Your task to perform on an android device: check out phone information Image 0: 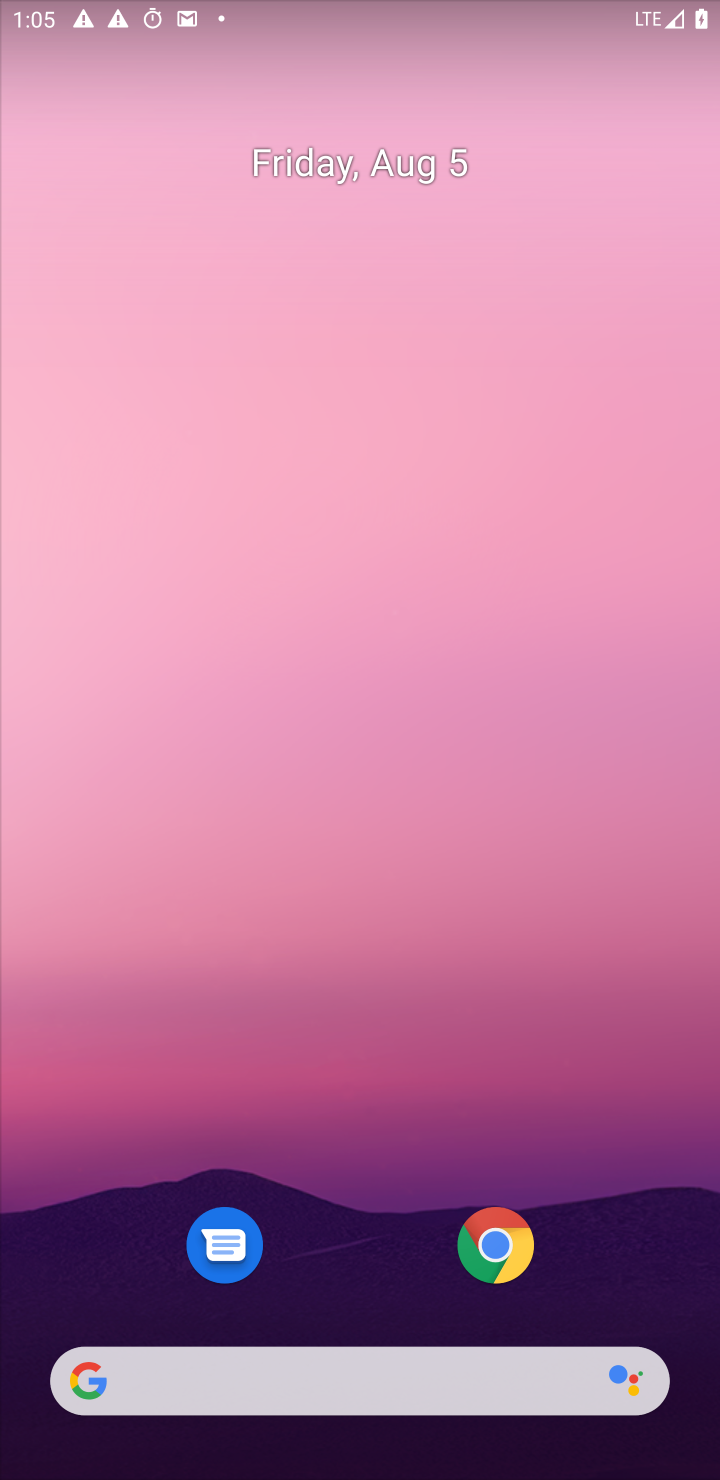
Step 0: press home button
Your task to perform on an android device: check out phone information Image 1: 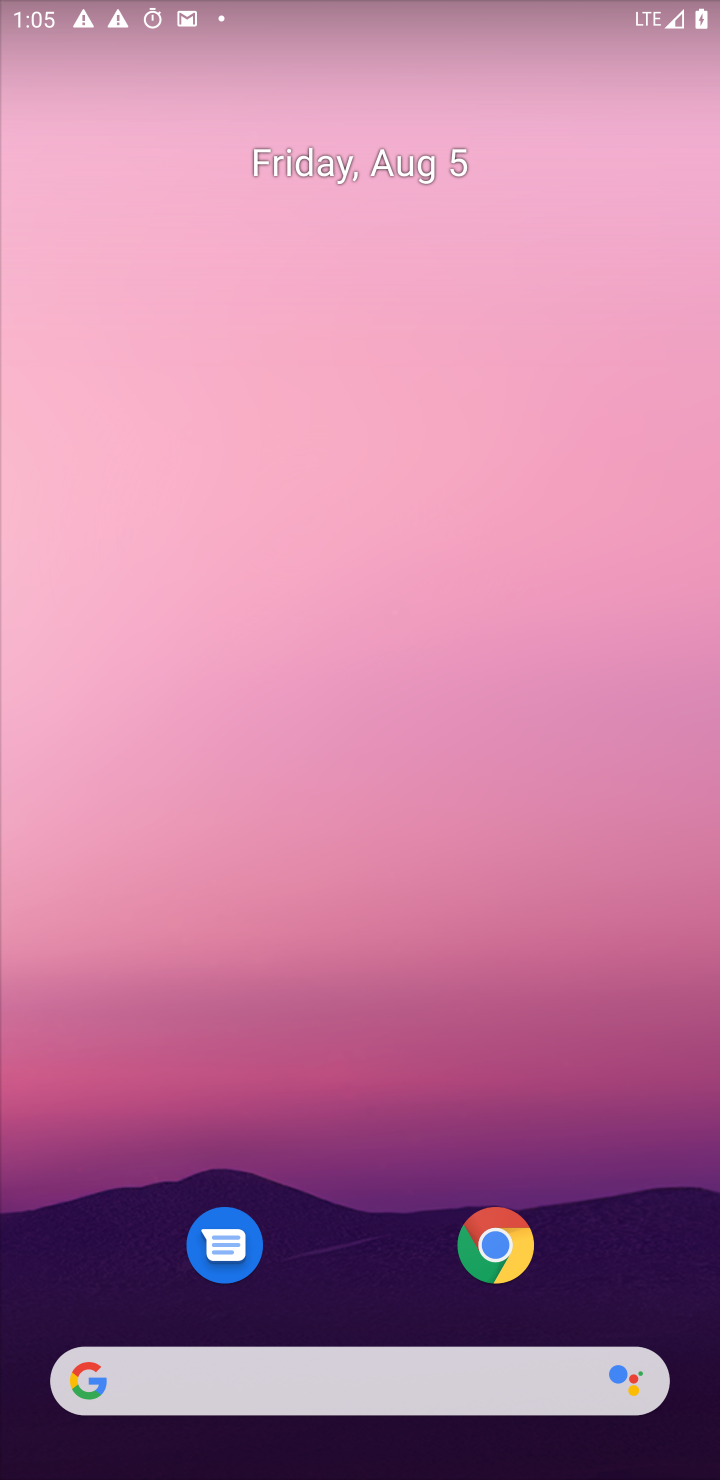
Step 1: drag from (308, 1315) to (631, 151)
Your task to perform on an android device: check out phone information Image 2: 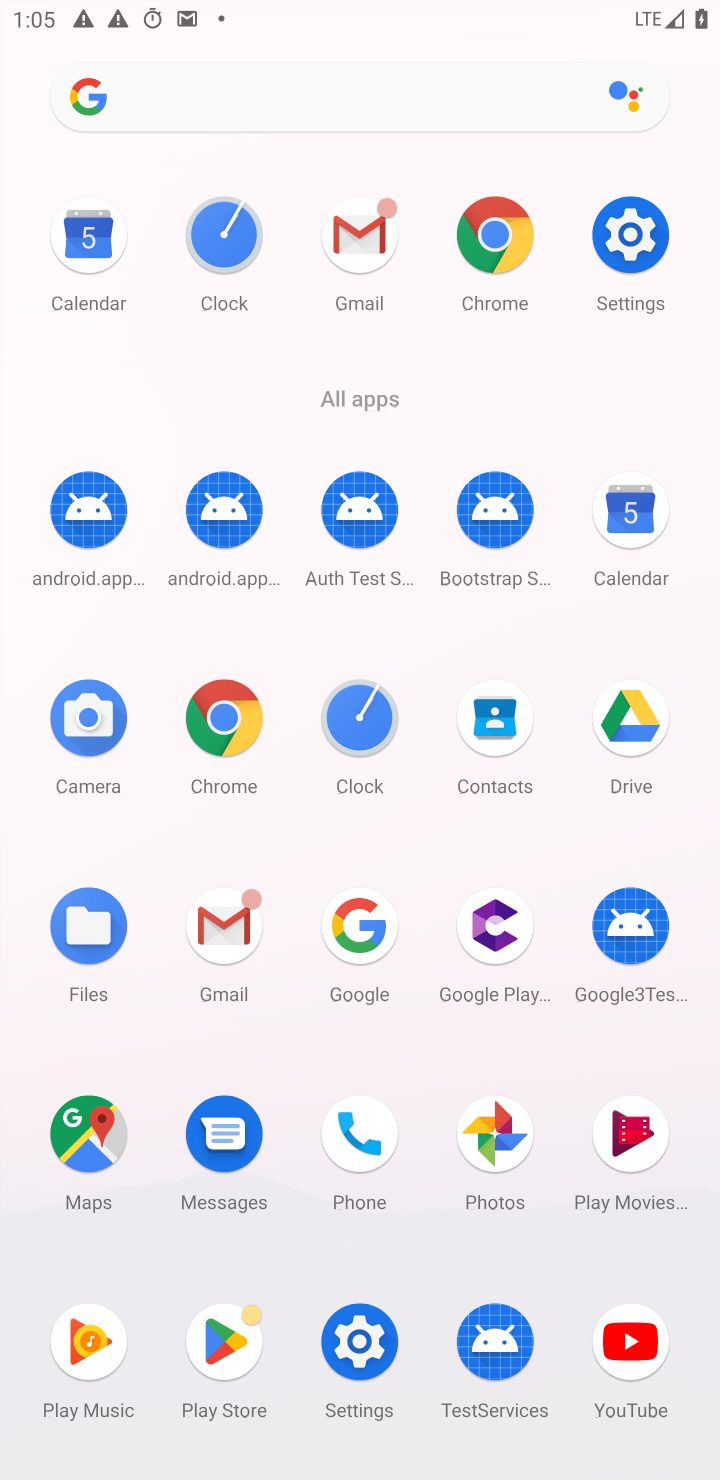
Step 2: click (346, 1360)
Your task to perform on an android device: check out phone information Image 3: 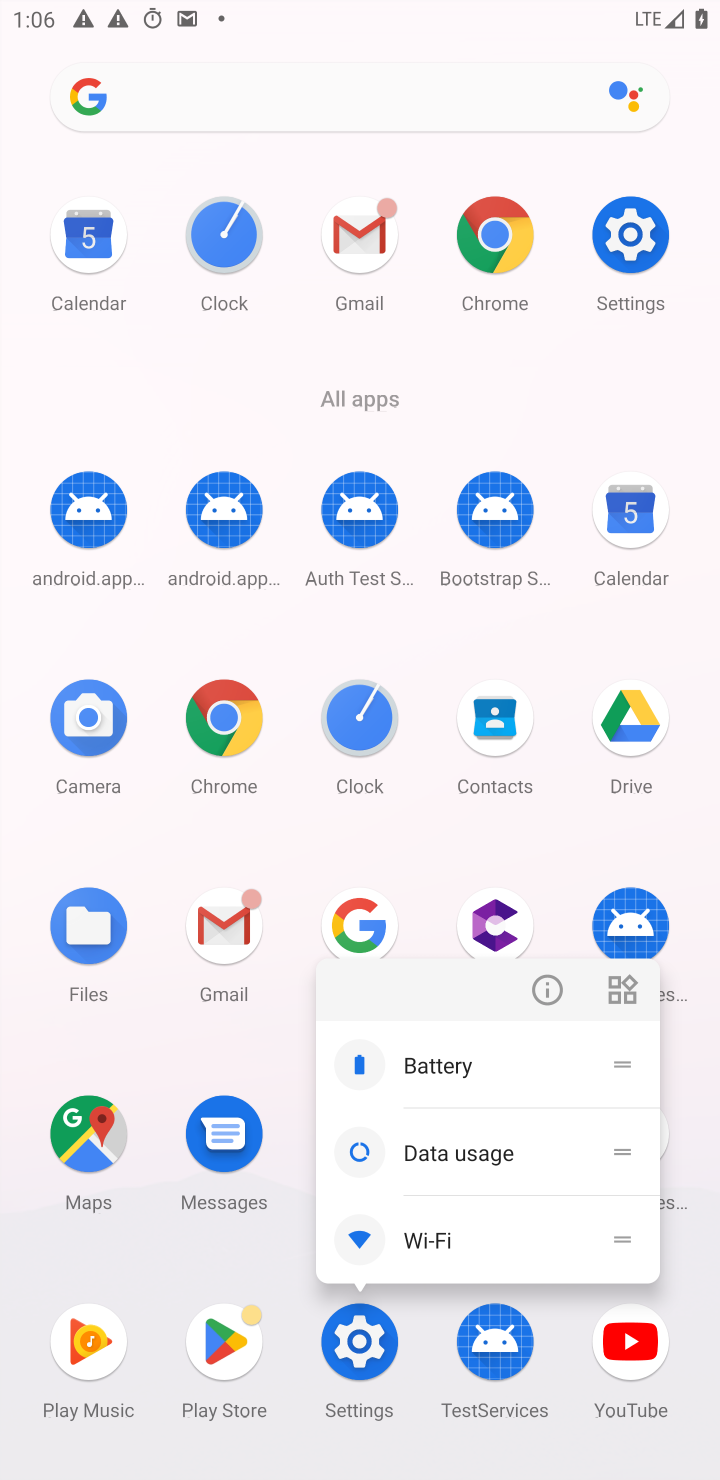
Step 3: click (344, 1356)
Your task to perform on an android device: check out phone information Image 4: 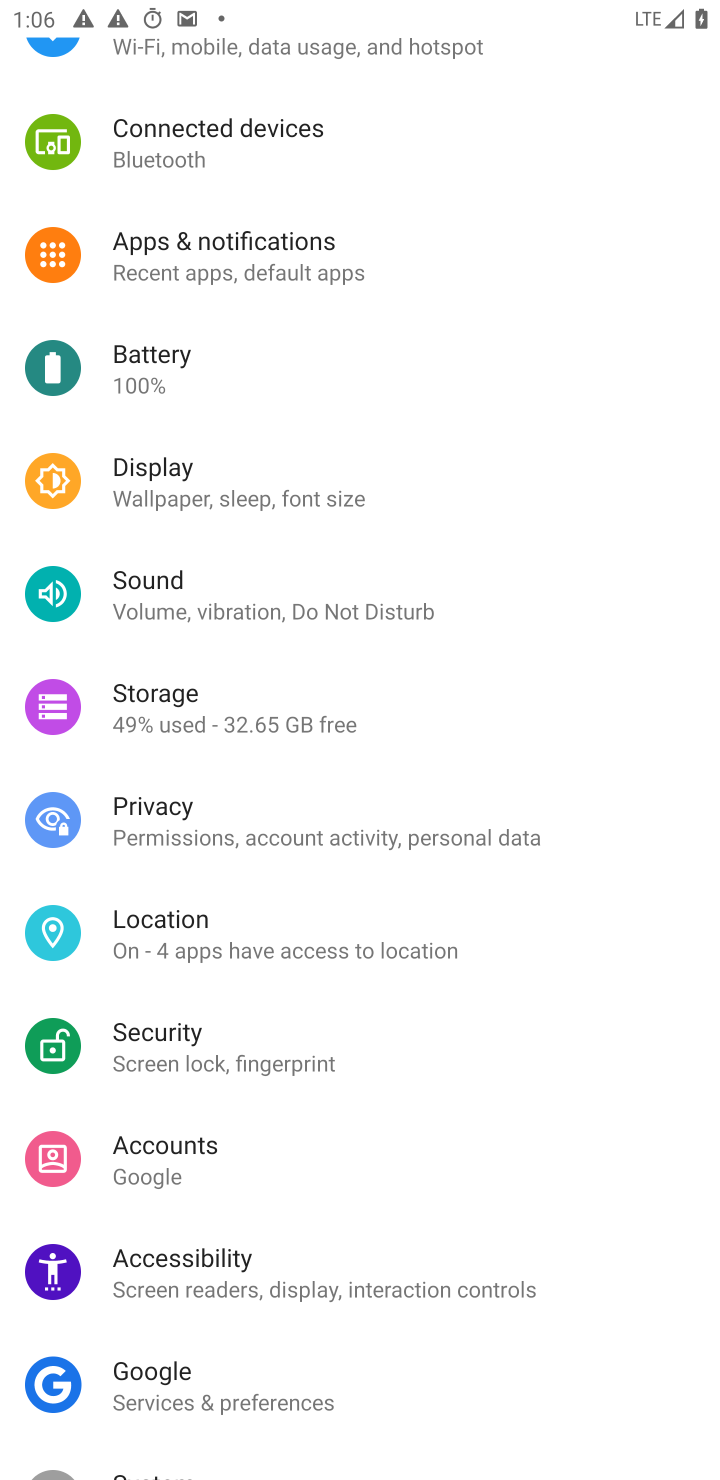
Step 4: drag from (554, 1263) to (541, 61)
Your task to perform on an android device: check out phone information Image 5: 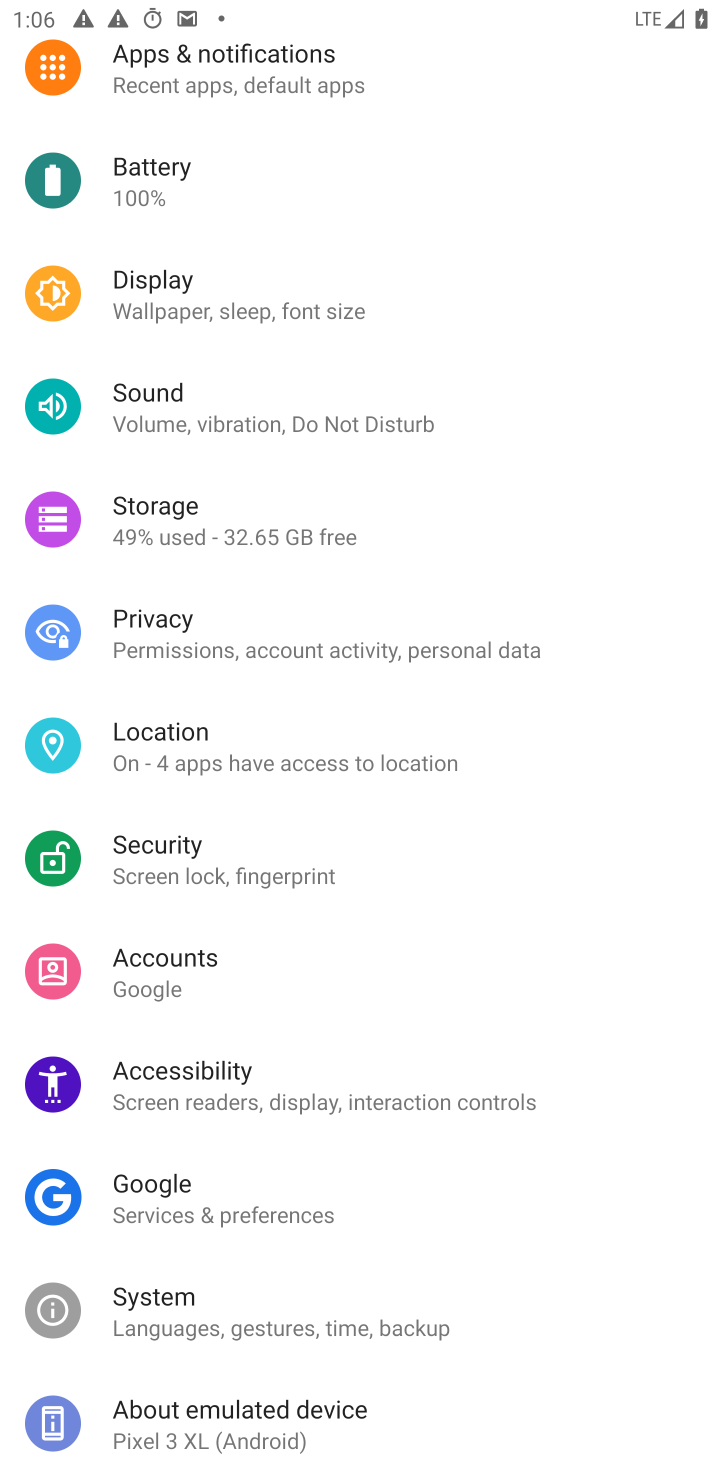
Step 5: click (166, 1435)
Your task to perform on an android device: check out phone information Image 6: 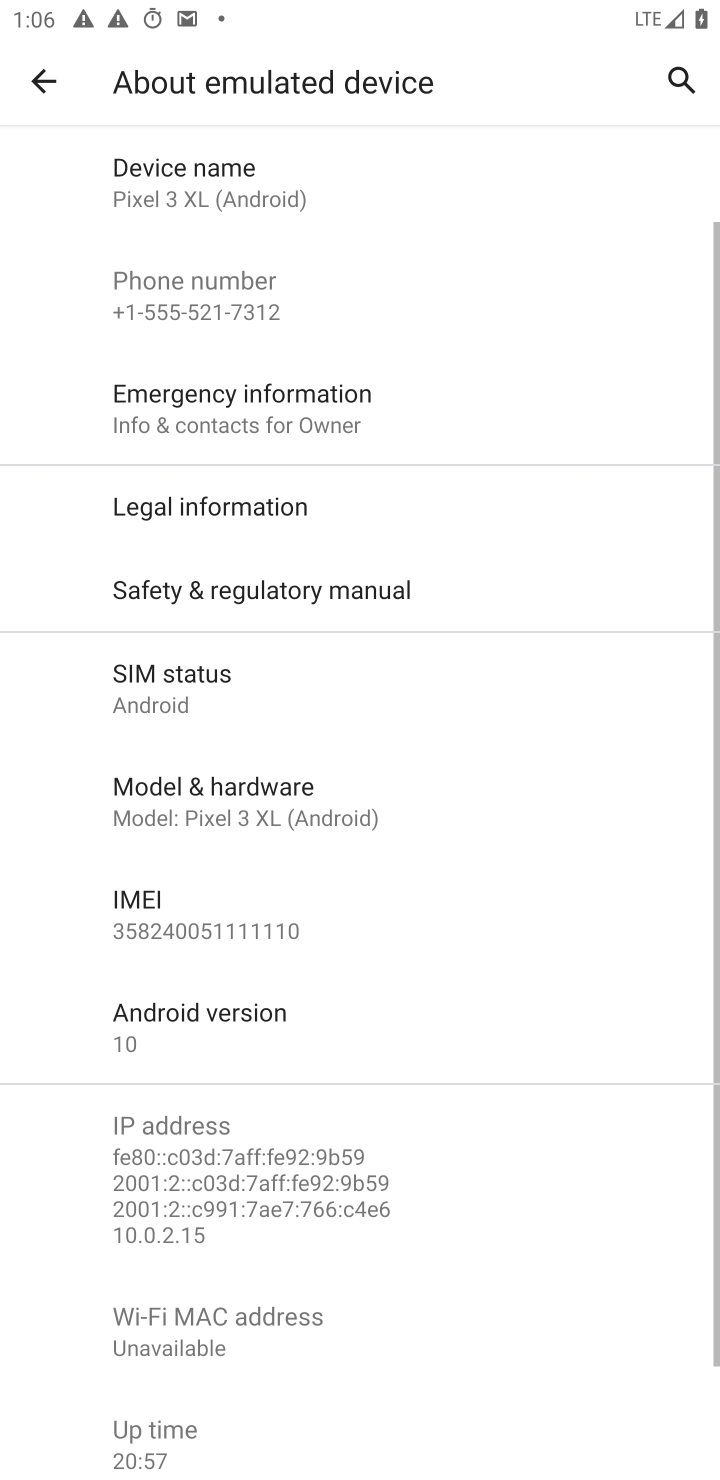
Step 6: task complete